Your task to perform on an android device: Open the Play Movies app and select the watchlist tab. Image 0: 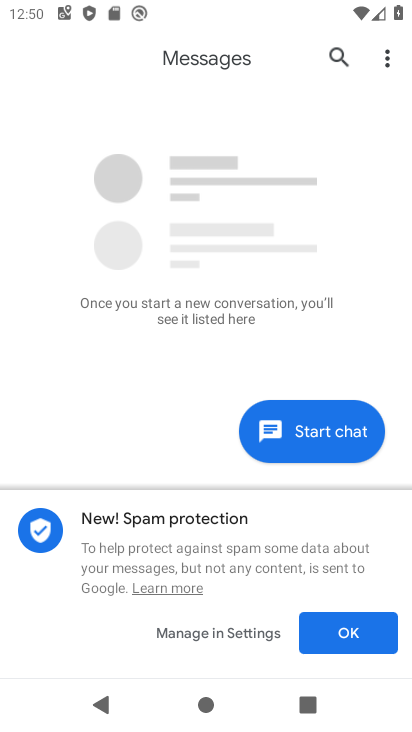
Step 0: press home button
Your task to perform on an android device: Open the Play Movies app and select the watchlist tab. Image 1: 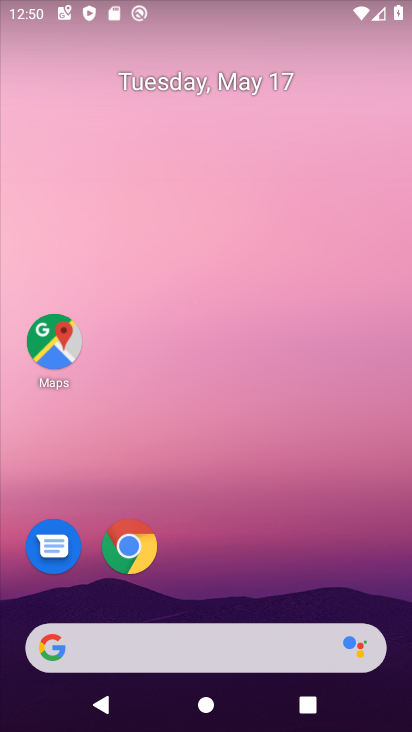
Step 1: drag from (406, 652) to (351, 113)
Your task to perform on an android device: Open the Play Movies app and select the watchlist tab. Image 2: 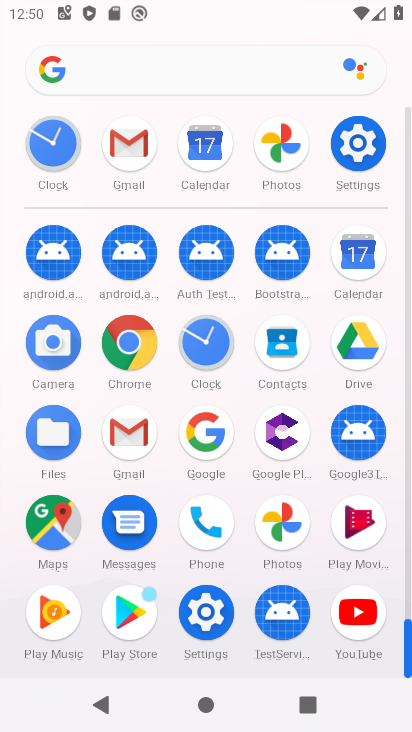
Step 2: click (408, 608)
Your task to perform on an android device: Open the Play Movies app and select the watchlist tab. Image 3: 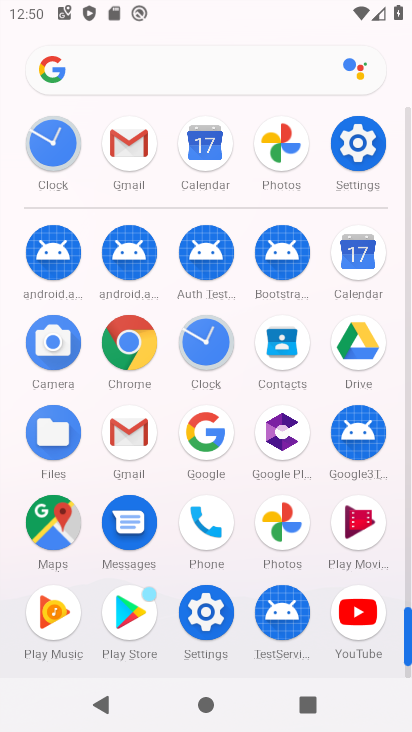
Step 3: click (364, 524)
Your task to perform on an android device: Open the Play Movies app and select the watchlist tab. Image 4: 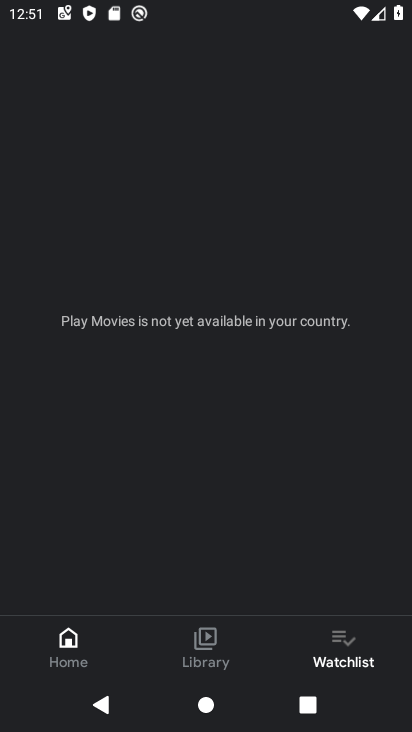
Step 4: task complete